Your task to perform on an android device: Go to CNN.com Image 0: 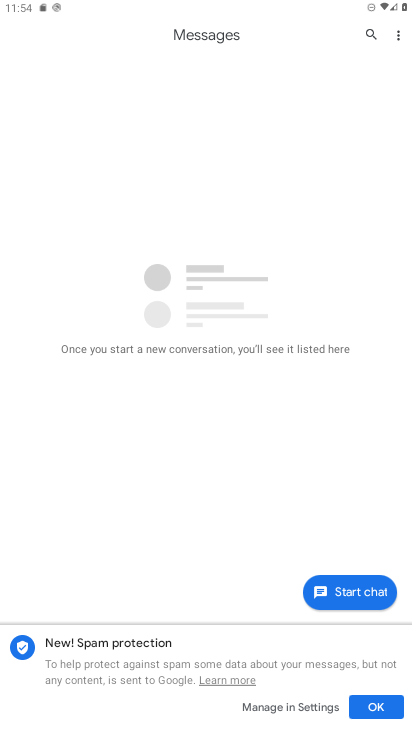
Step 0: press home button
Your task to perform on an android device: Go to CNN.com Image 1: 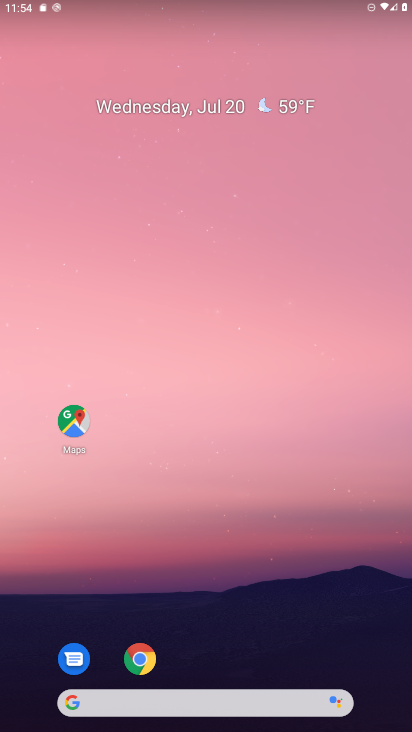
Step 1: click (173, 701)
Your task to perform on an android device: Go to CNN.com Image 2: 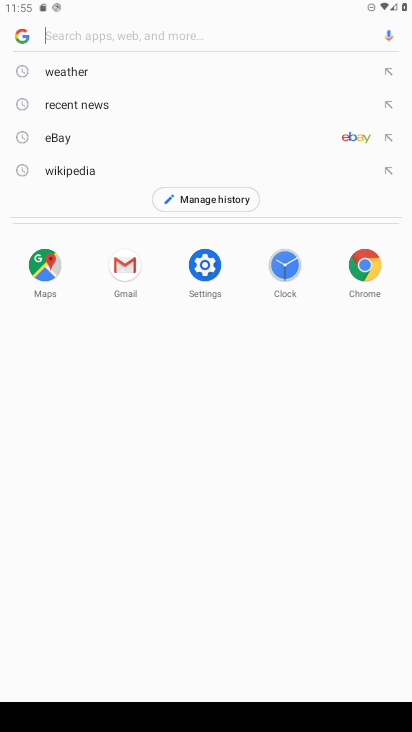
Step 2: type "CNN.com"
Your task to perform on an android device: Go to CNN.com Image 3: 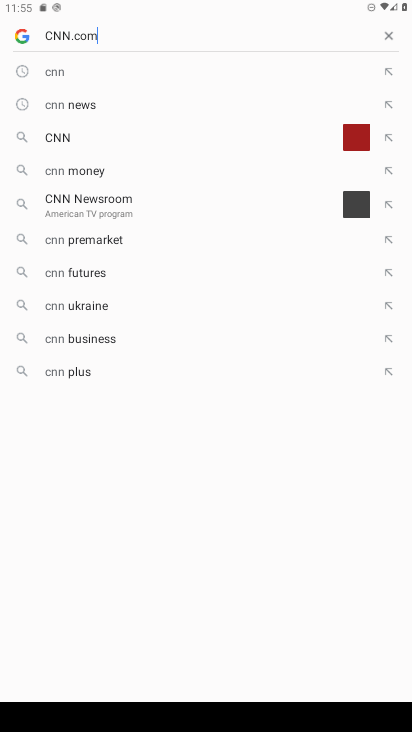
Step 3: type ""
Your task to perform on an android device: Go to CNN.com Image 4: 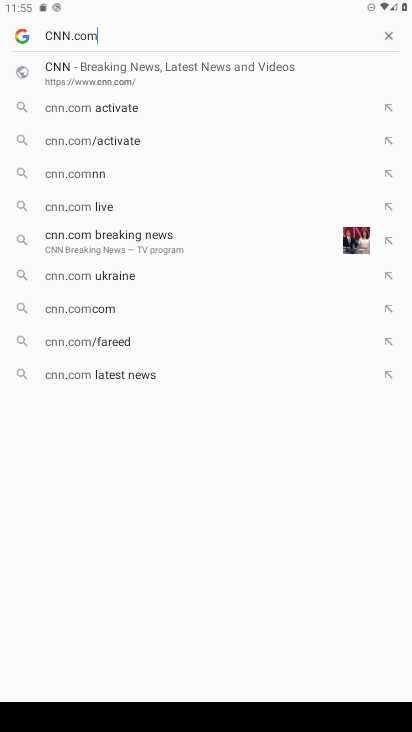
Step 4: click (118, 78)
Your task to perform on an android device: Go to CNN.com Image 5: 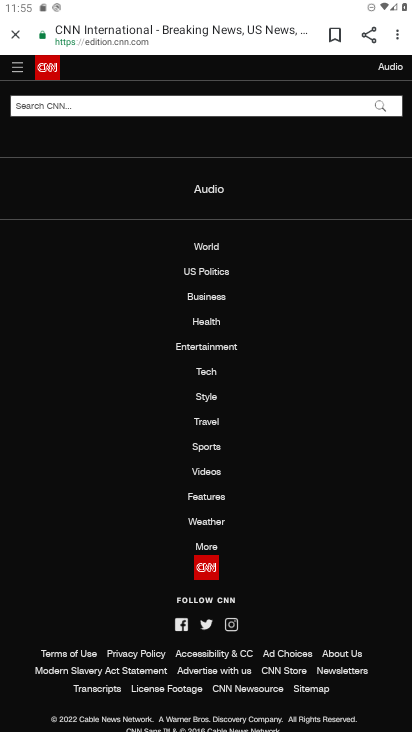
Step 5: task complete